Your task to perform on an android device: Show me popular games on the Play Store Image 0: 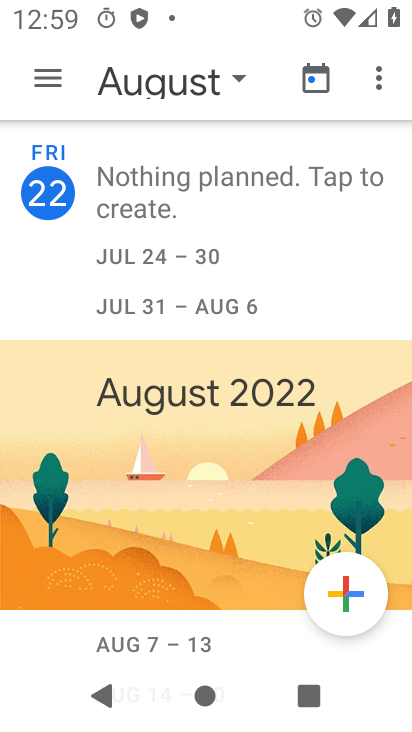
Step 0: press home button
Your task to perform on an android device: Show me popular games on the Play Store Image 1: 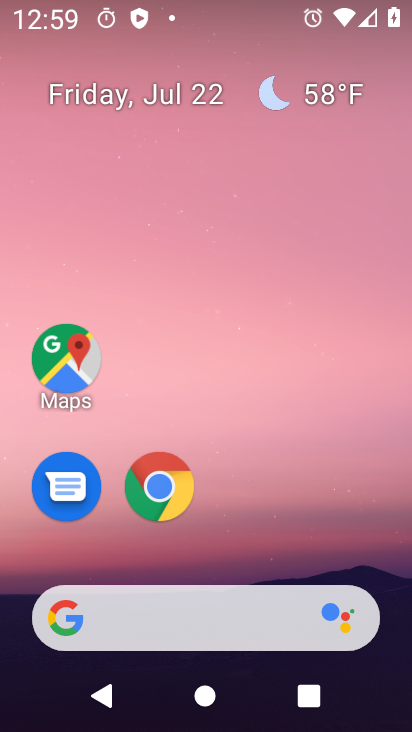
Step 1: drag from (347, 532) to (354, 73)
Your task to perform on an android device: Show me popular games on the Play Store Image 2: 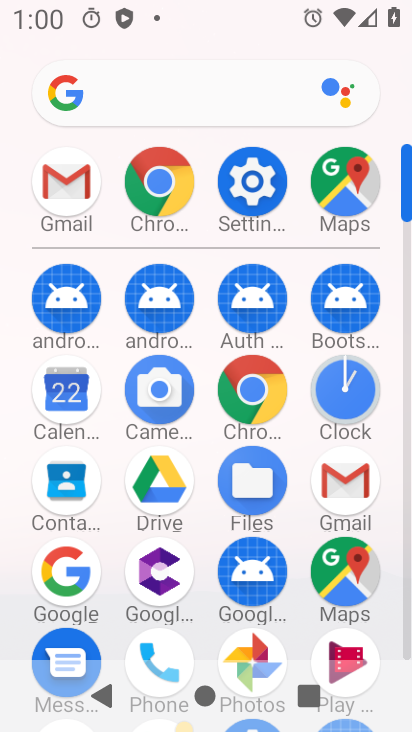
Step 2: drag from (391, 462) to (398, 222)
Your task to perform on an android device: Show me popular games on the Play Store Image 3: 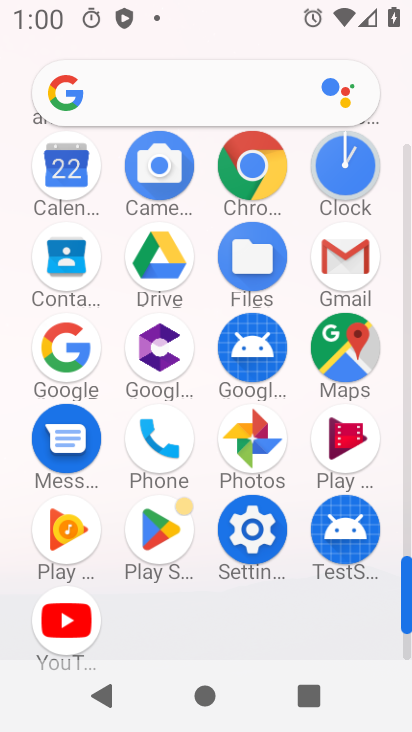
Step 3: click (178, 532)
Your task to perform on an android device: Show me popular games on the Play Store Image 4: 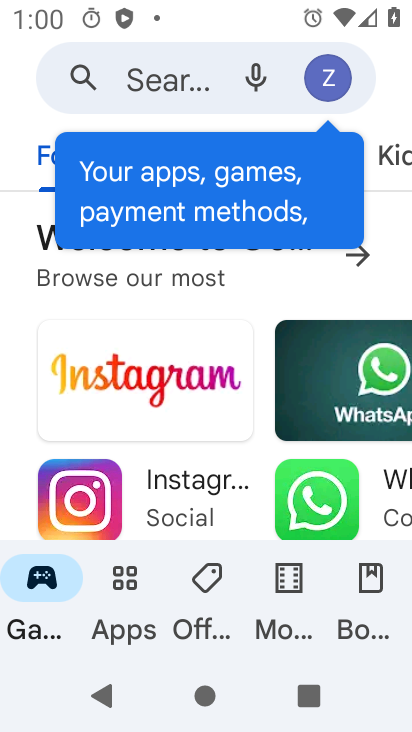
Step 4: click (39, 631)
Your task to perform on an android device: Show me popular games on the Play Store Image 5: 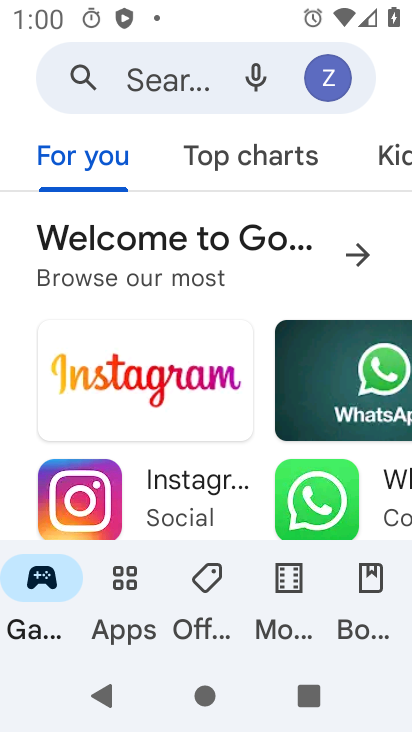
Step 5: task complete